Your task to perform on an android device: Open Google Chrome Image 0: 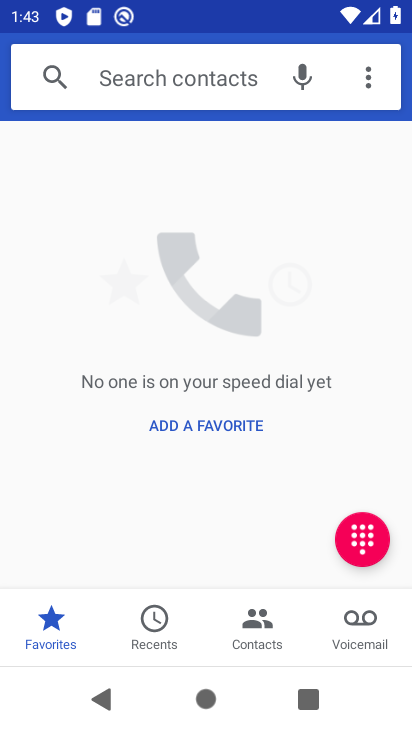
Step 0: press home button
Your task to perform on an android device: Open Google Chrome Image 1: 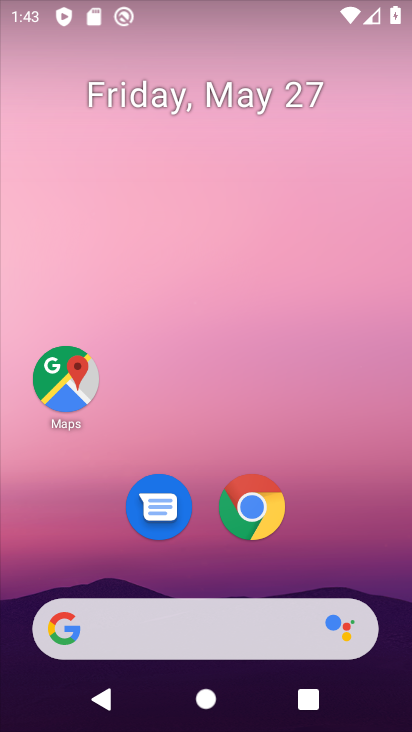
Step 1: drag from (202, 542) to (246, 85)
Your task to perform on an android device: Open Google Chrome Image 2: 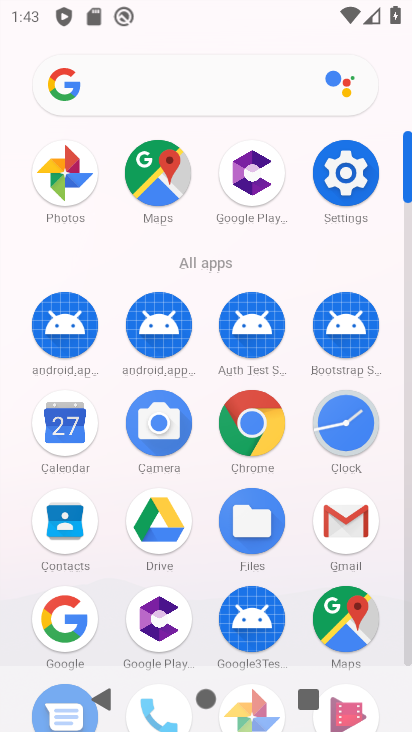
Step 2: click (249, 412)
Your task to perform on an android device: Open Google Chrome Image 3: 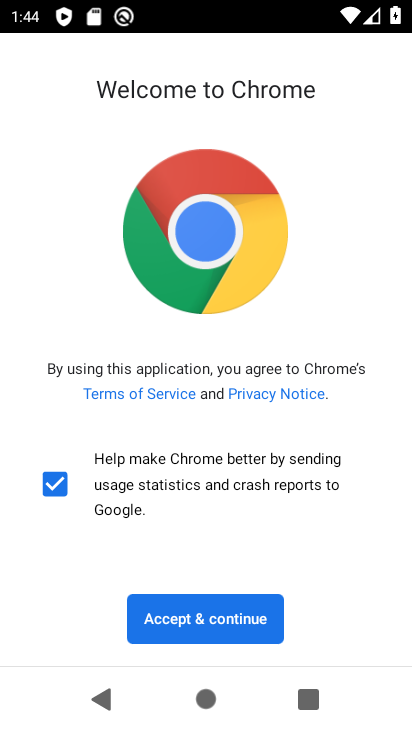
Step 3: click (178, 618)
Your task to perform on an android device: Open Google Chrome Image 4: 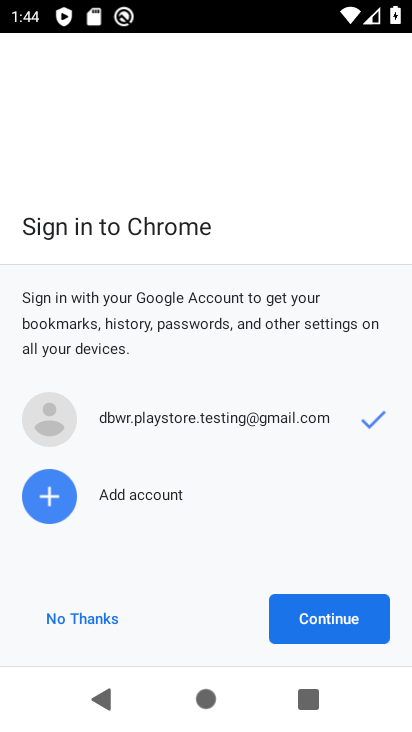
Step 4: click (320, 630)
Your task to perform on an android device: Open Google Chrome Image 5: 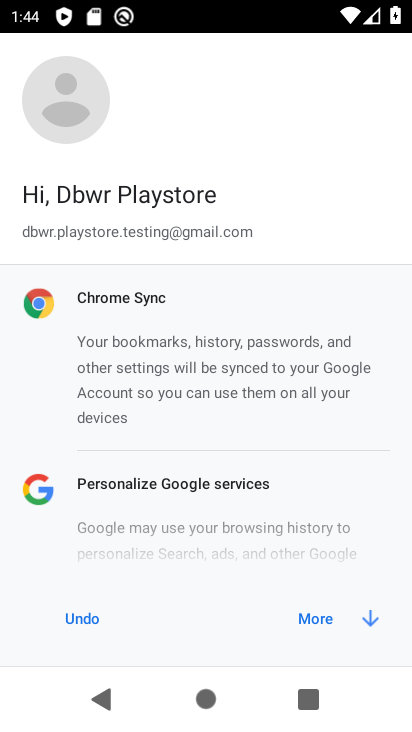
Step 5: click (303, 611)
Your task to perform on an android device: Open Google Chrome Image 6: 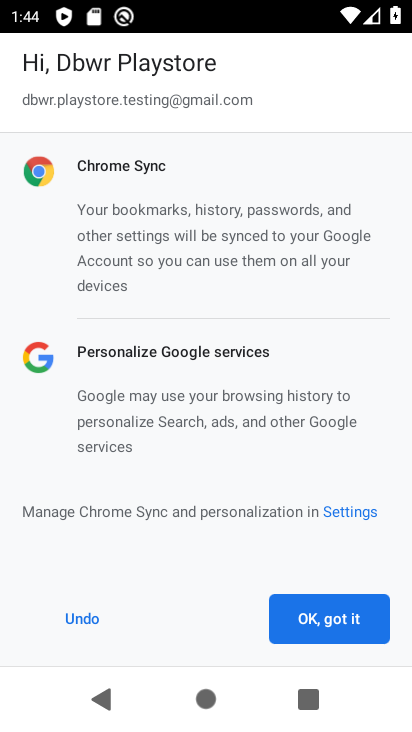
Step 6: click (322, 614)
Your task to perform on an android device: Open Google Chrome Image 7: 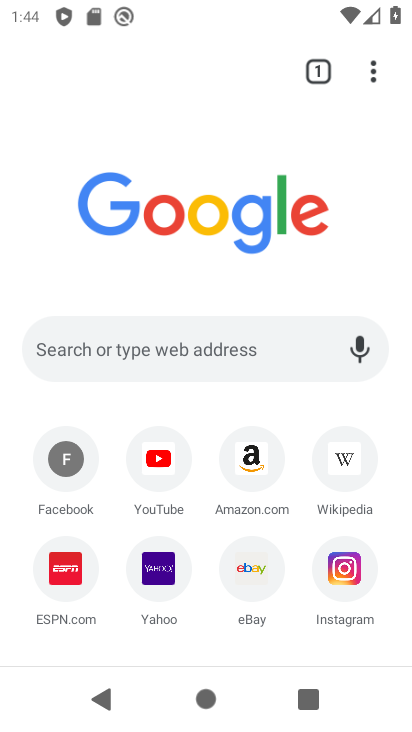
Step 7: task complete